Your task to perform on an android device: Open Amazon Image 0: 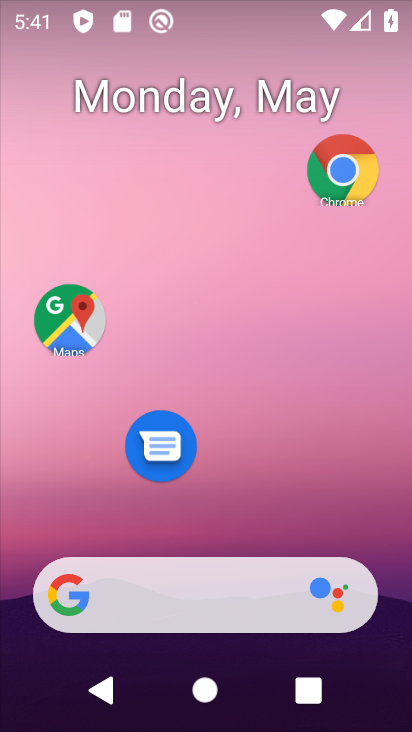
Step 0: click (349, 166)
Your task to perform on an android device: Open Amazon Image 1: 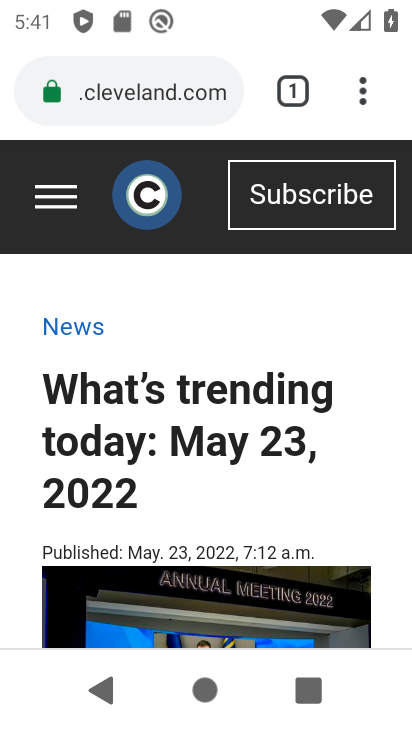
Step 1: drag from (366, 93) to (98, 180)
Your task to perform on an android device: Open Amazon Image 2: 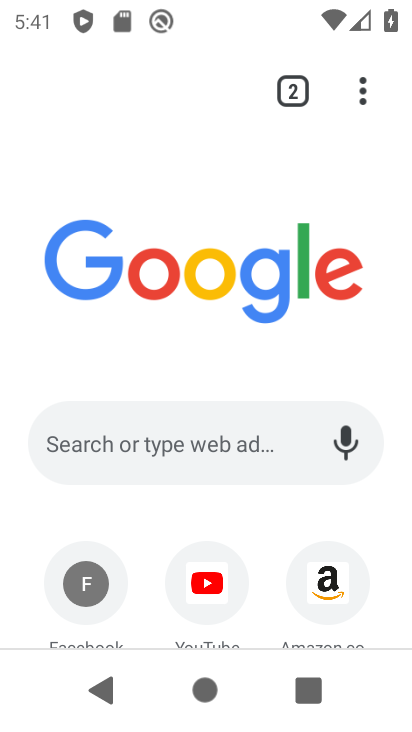
Step 2: drag from (252, 517) to (262, 125)
Your task to perform on an android device: Open Amazon Image 3: 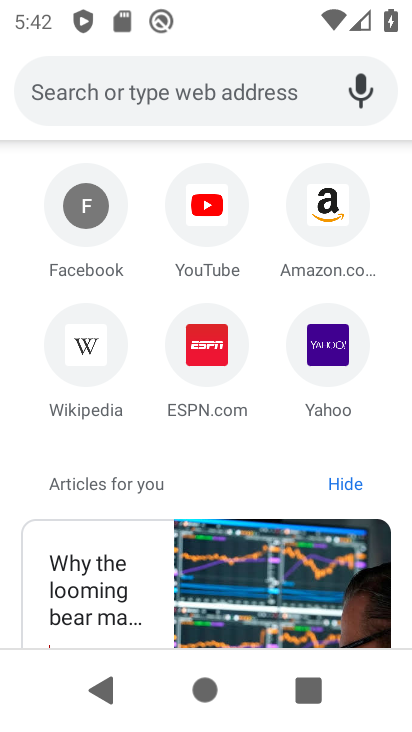
Step 3: click (330, 196)
Your task to perform on an android device: Open Amazon Image 4: 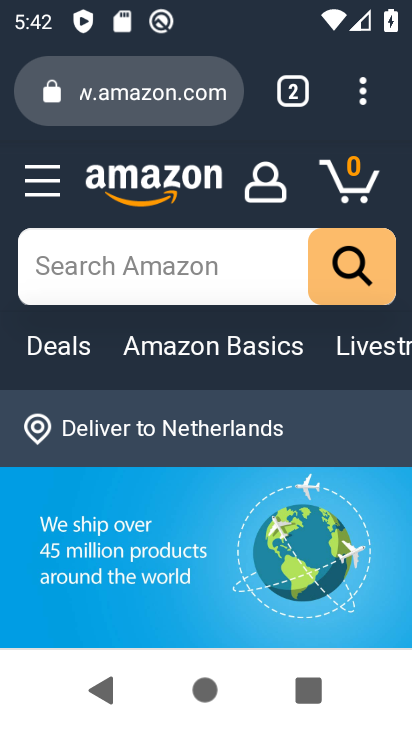
Step 4: task complete